Your task to perform on an android device: Search for "usb-c to usb-b" on newegg, select the first entry, and add it to the cart. Image 0: 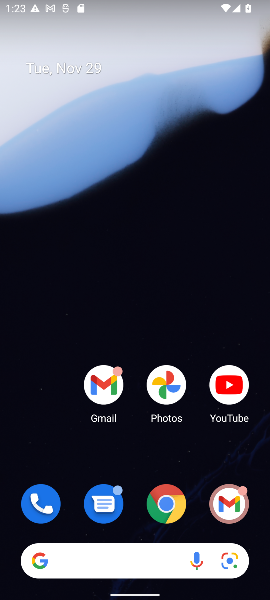
Step 0: click (172, 502)
Your task to perform on an android device: Search for "usb-c to usb-b" on newegg, select the first entry, and add it to the cart. Image 1: 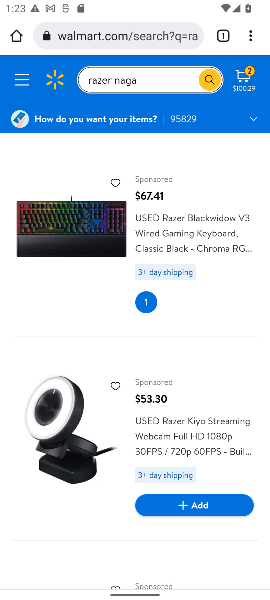
Step 1: click (111, 34)
Your task to perform on an android device: Search for "usb-c to usb-b" on newegg, select the first entry, and add it to the cart. Image 2: 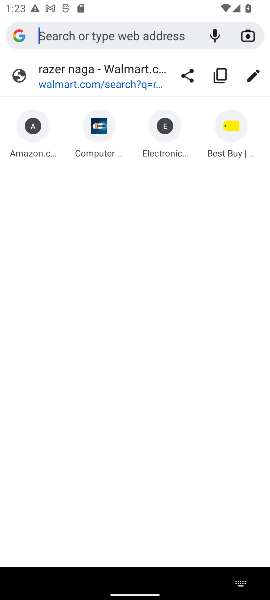
Step 2: click (95, 140)
Your task to perform on an android device: Search for "usb-c to usb-b" on newegg, select the first entry, and add it to the cart. Image 3: 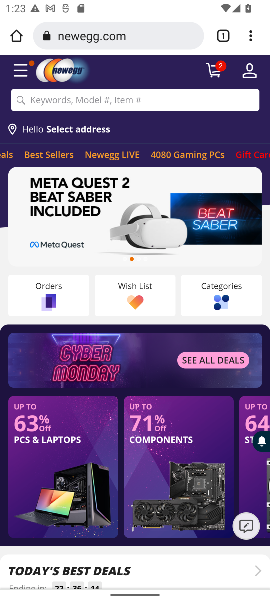
Step 3: click (81, 102)
Your task to perform on an android device: Search for "usb-c to usb-b" on newegg, select the first entry, and add it to the cart. Image 4: 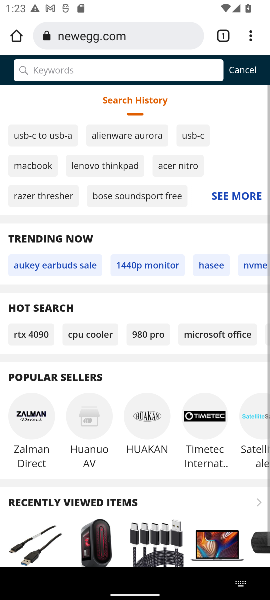
Step 4: type "usb-c to usb-b"
Your task to perform on an android device: Search for "usb-c to usb-b" on newegg, select the first entry, and add it to the cart. Image 5: 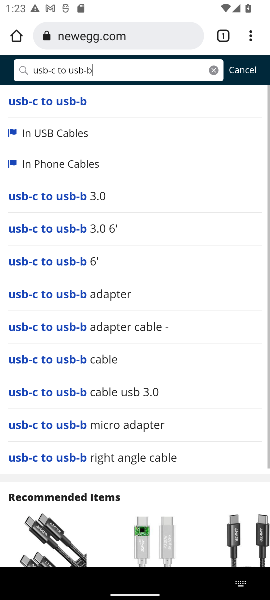
Step 5: click (25, 103)
Your task to perform on an android device: Search for "usb-c to usb-b" on newegg, select the first entry, and add it to the cart. Image 6: 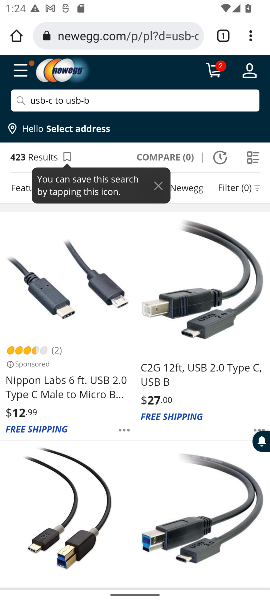
Step 6: click (55, 337)
Your task to perform on an android device: Search for "usb-c to usb-b" on newegg, select the first entry, and add it to the cart. Image 7: 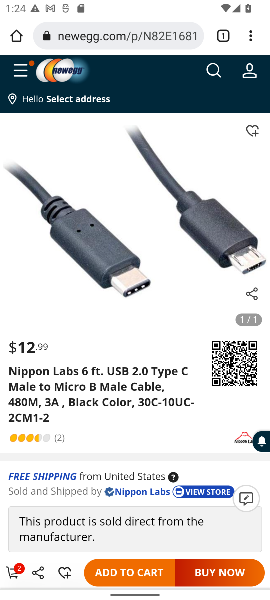
Step 7: task complete